Your task to perform on an android device: check battery use Image 0: 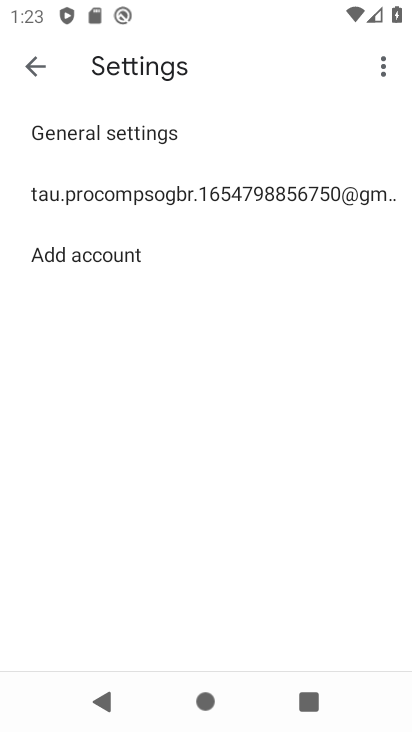
Step 0: press home button
Your task to perform on an android device: check battery use Image 1: 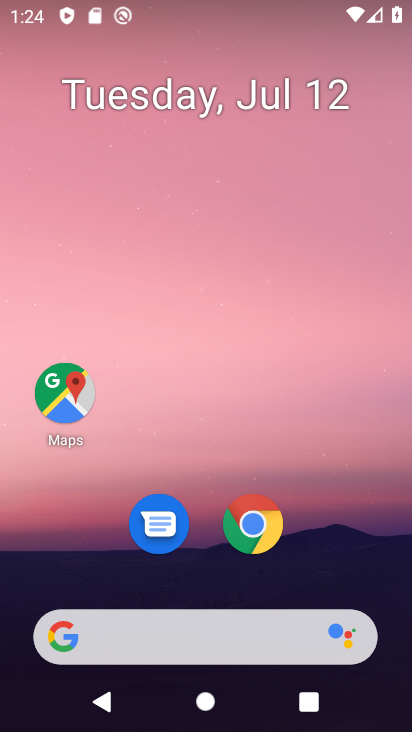
Step 1: drag from (261, 484) to (277, 23)
Your task to perform on an android device: check battery use Image 2: 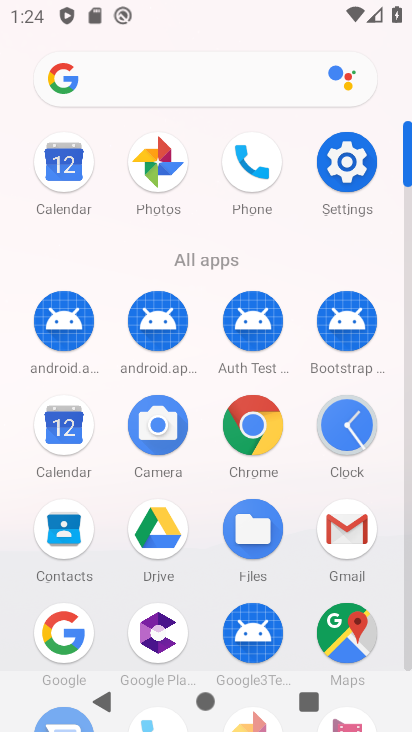
Step 2: click (345, 156)
Your task to perform on an android device: check battery use Image 3: 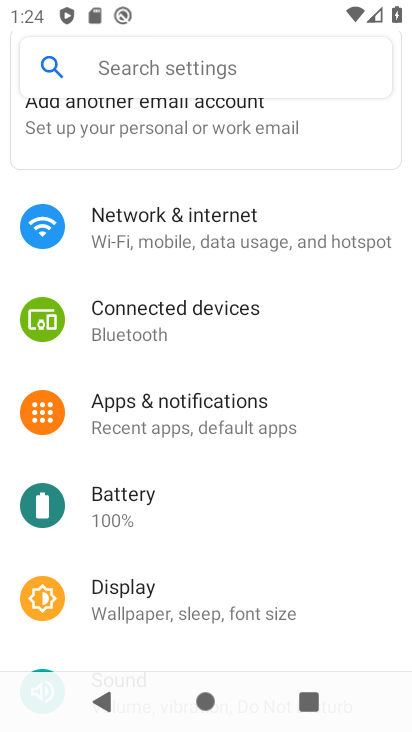
Step 3: click (162, 501)
Your task to perform on an android device: check battery use Image 4: 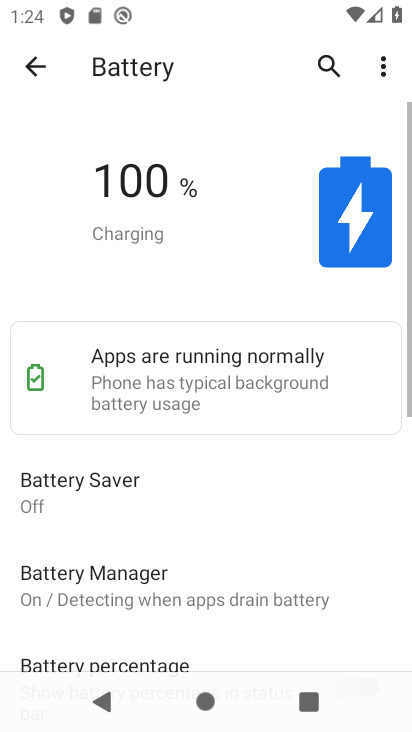
Step 4: click (381, 68)
Your task to perform on an android device: check battery use Image 5: 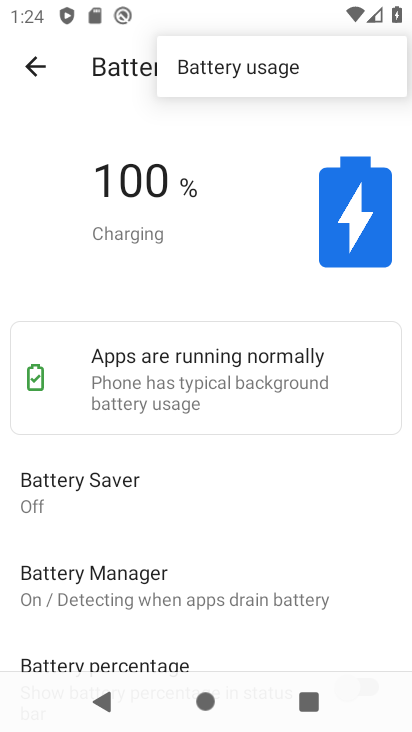
Step 5: click (274, 57)
Your task to perform on an android device: check battery use Image 6: 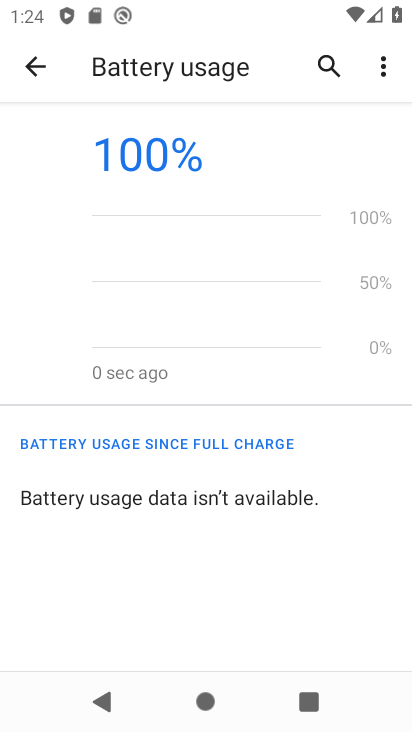
Step 6: task complete